Your task to perform on an android device: Search for vegetarian restaurants on Maps Image 0: 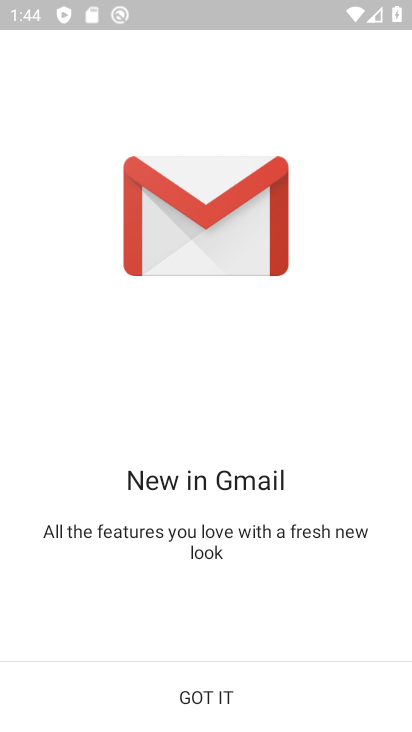
Step 0: click (230, 702)
Your task to perform on an android device: Search for vegetarian restaurants on Maps Image 1: 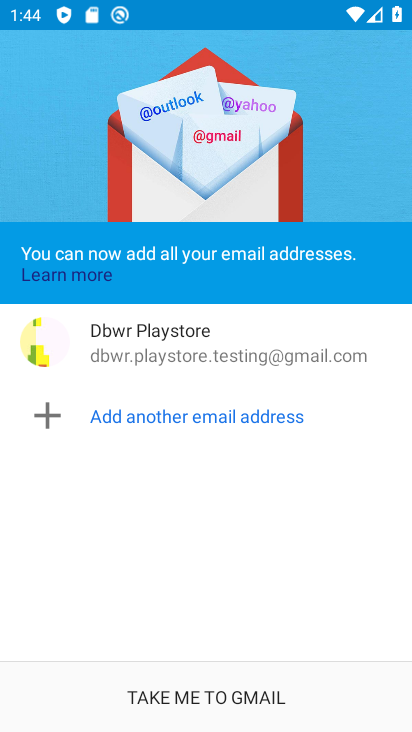
Step 1: press home button
Your task to perform on an android device: Search for vegetarian restaurants on Maps Image 2: 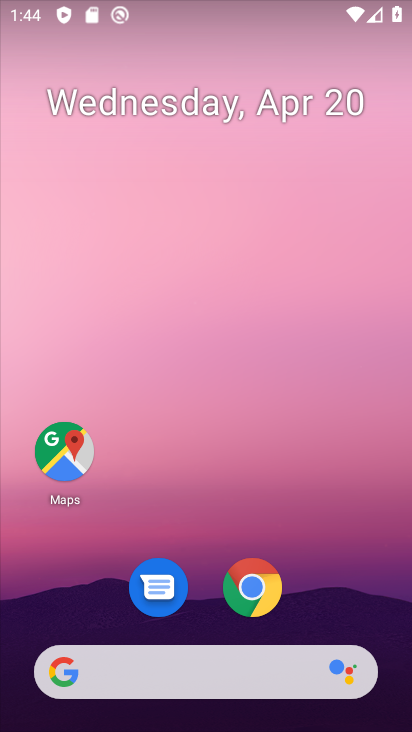
Step 2: click (88, 445)
Your task to perform on an android device: Search for vegetarian restaurants on Maps Image 3: 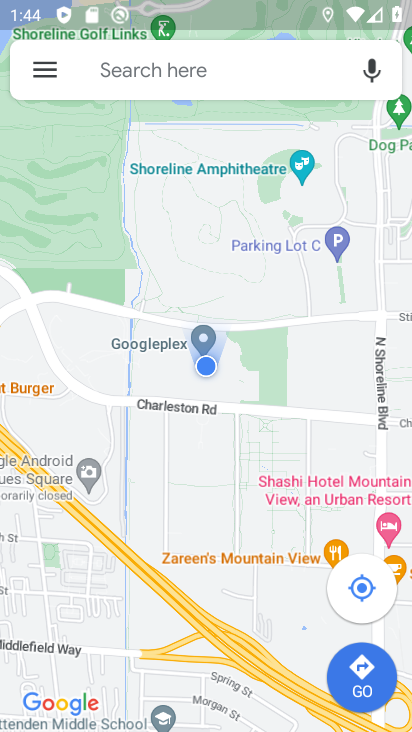
Step 3: click (179, 59)
Your task to perform on an android device: Search for vegetarian restaurants on Maps Image 4: 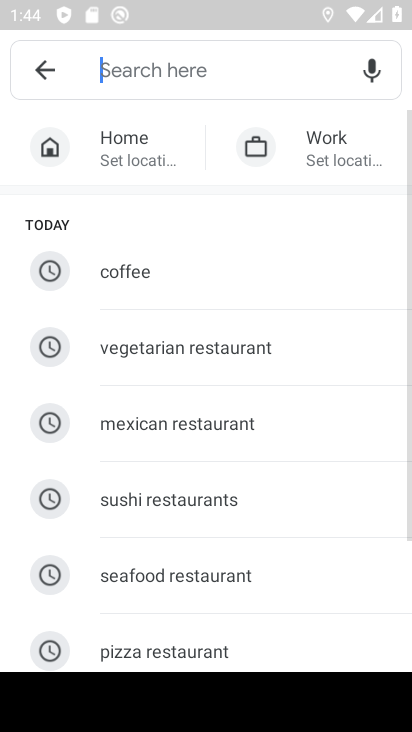
Step 4: click (223, 352)
Your task to perform on an android device: Search for vegetarian restaurants on Maps Image 5: 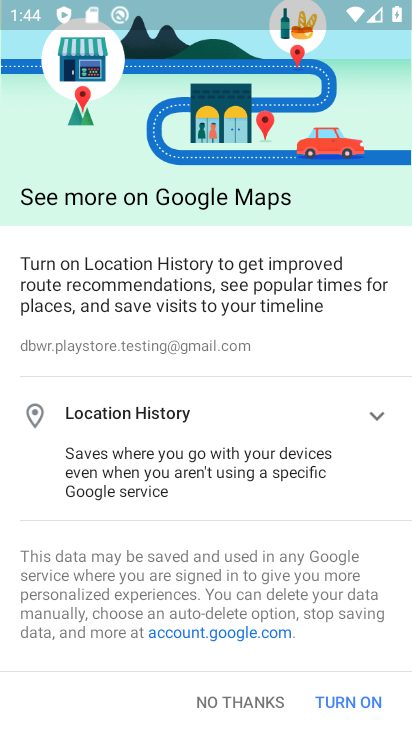
Step 5: click (249, 701)
Your task to perform on an android device: Search for vegetarian restaurants on Maps Image 6: 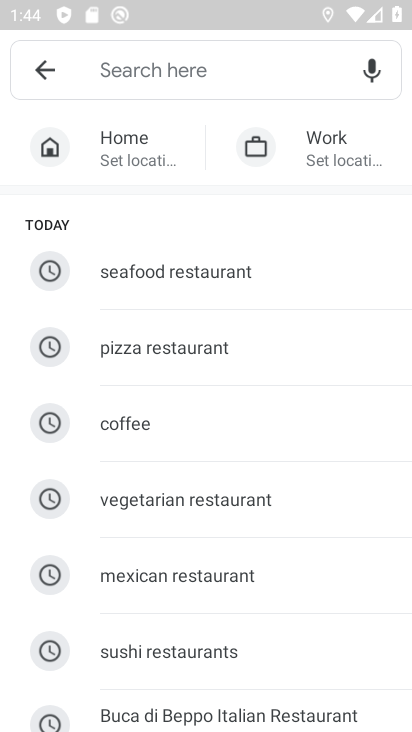
Step 6: click (239, 506)
Your task to perform on an android device: Search for vegetarian restaurants on Maps Image 7: 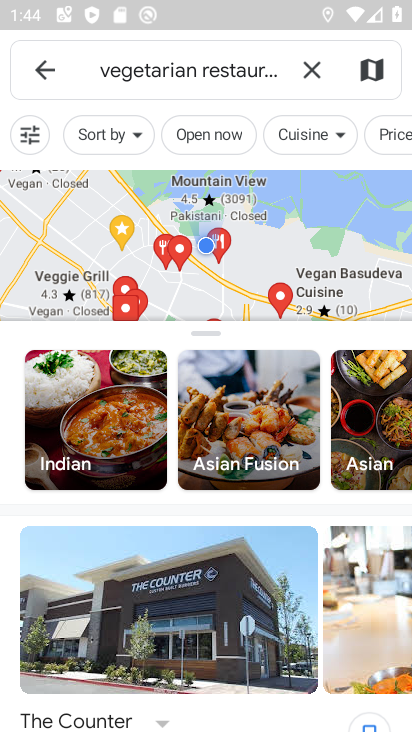
Step 7: task complete